Your task to perform on an android device: Go to Yahoo.com Image 0: 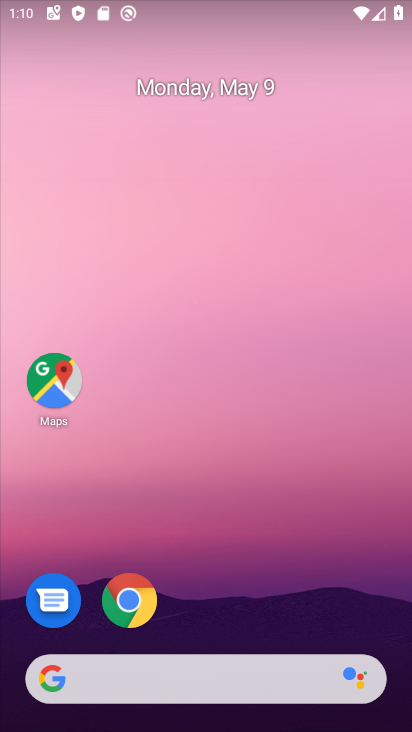
Step 0: click (131, 605)
Your task to perform on an android device: Go to Yahoo.com Image 1: 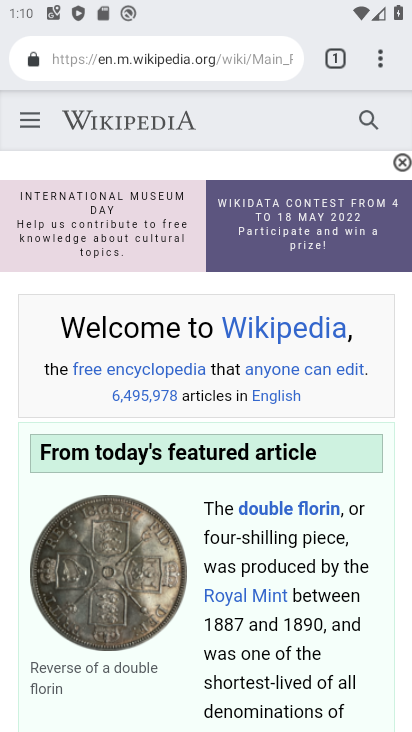
Step 1: click (330, 58)
Your task to perform on an android device: Go to Yahoo.com Image 2: 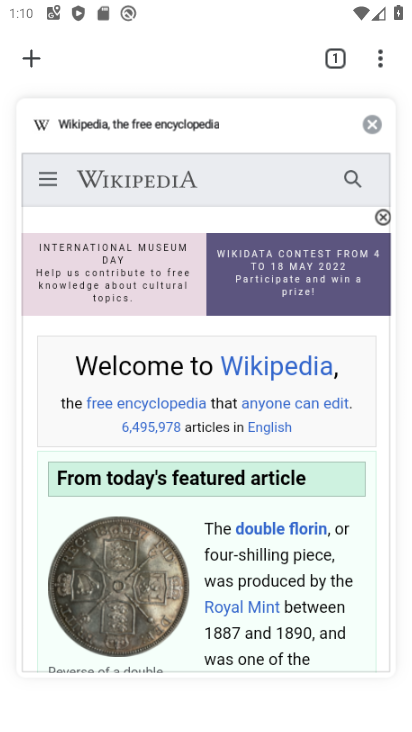
Step 2: click (33, 45)
Your task to perform on an android device: Go to Yahoo.com Image 3: 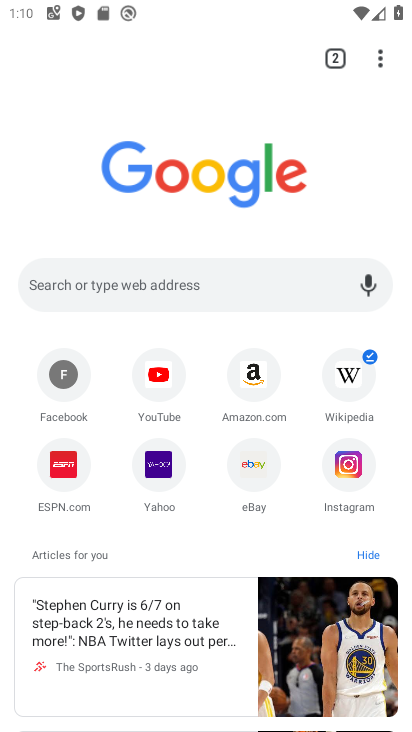
Step 3: click (149, 474)
Your task to perform on an android device: Go to Yahoo.com Image 4: 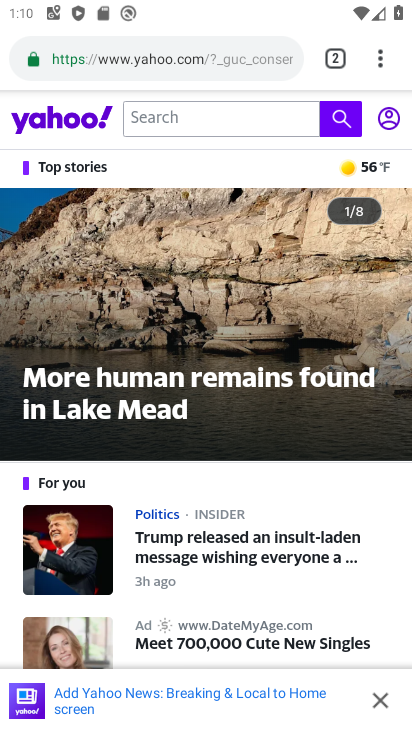
Step 4: task complete